Your task to perform on an android device: Open Wikipedia Image 0: 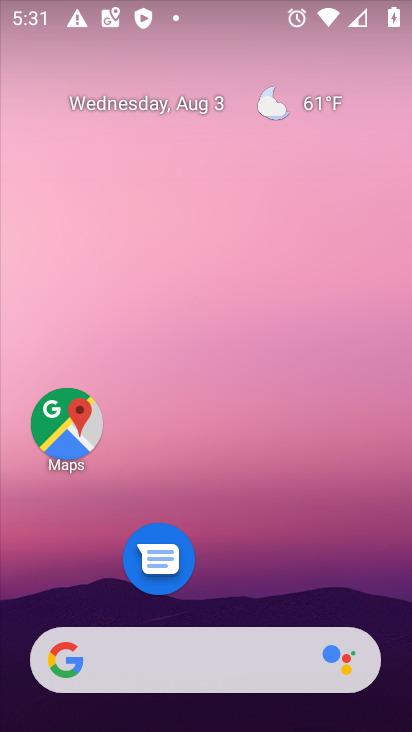
Step 0: drag from (232, 633) to (293, 63)
Your task to perform on an android device: Open Wikipedia Image 1: 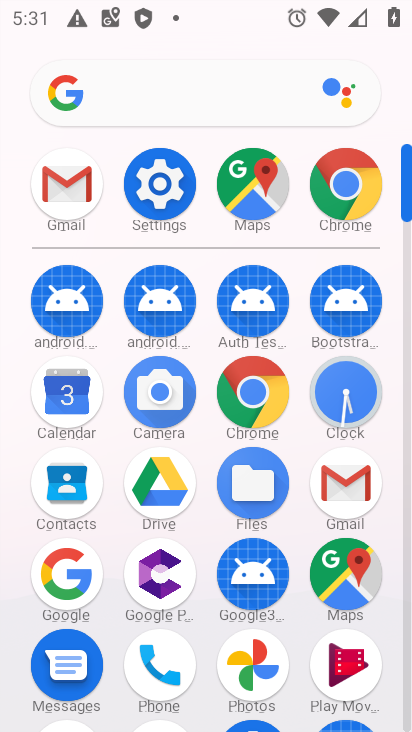
Step 1: click (349, 204)
Your task to perform on an android device: Open Wikipedia Image 2: 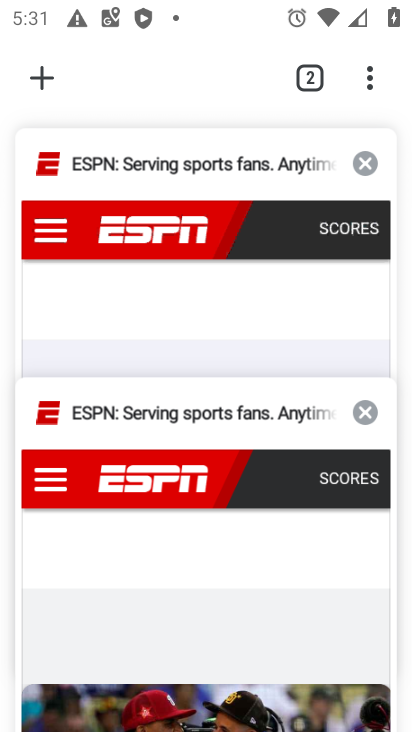
Step 2: click (38, 75)
Your task to perform on an android device: Open Wikipedia Image 3: 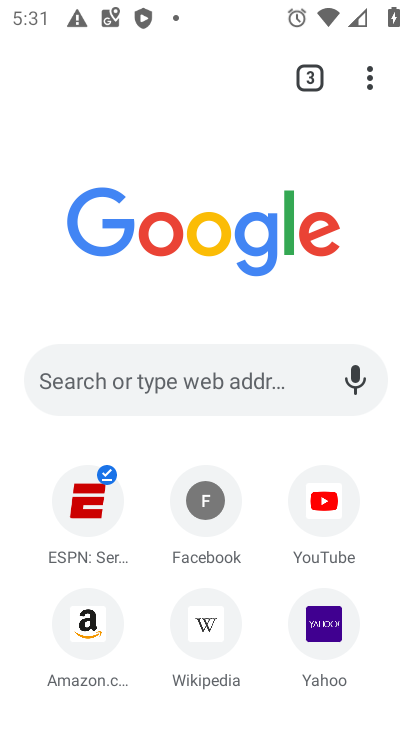
Step 3: click (222, 634)
Your task to perform on an android device: Open Wikipedia Image 4: 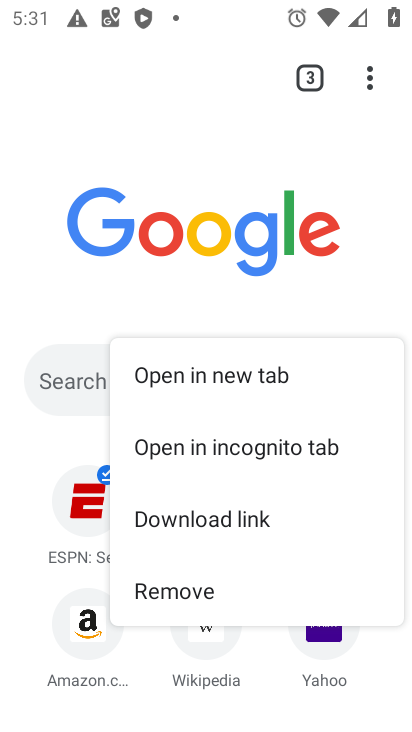
Step 4: click (49, 131)
Your task to perform on an android device: Open Wikipedia Image 5: 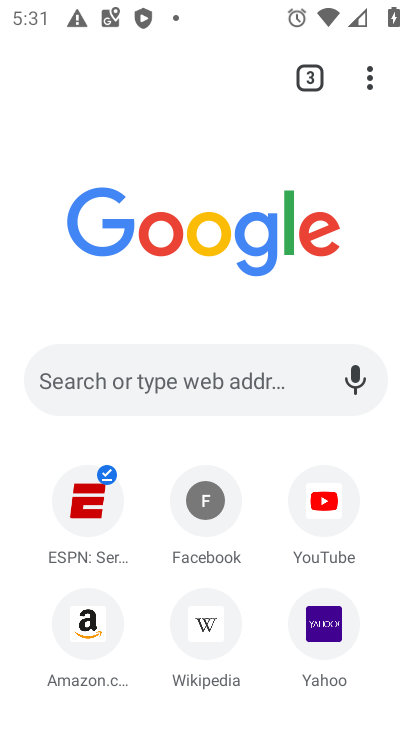
Step 5: click (192, 631)
Your task to perform on an android device: Open Wikipedia Image 6: 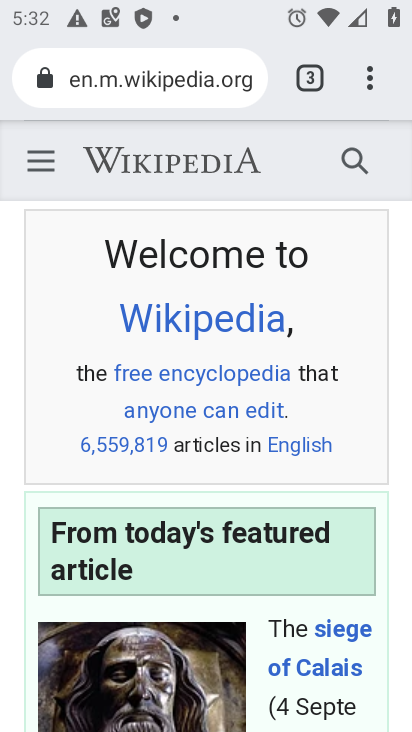
Step 6: task complete